Your task to perform on an android device: change the clock display to digital Image 0: 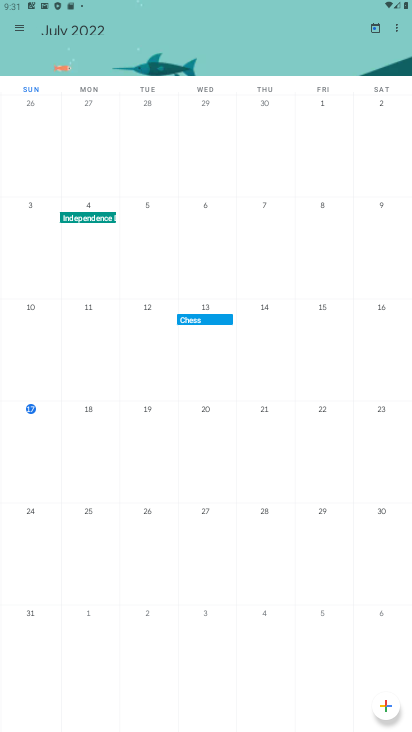
Step 0: press home button
Your task to perform on an android device: change the clock display to digital Image 1: 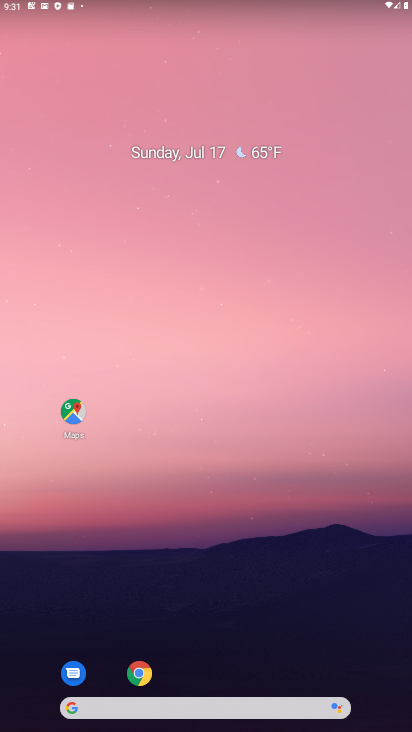
Step 1: drag from (250, 596) to (222, 113)
Your task to perform on an android device: change the clock display to digital Image 2: 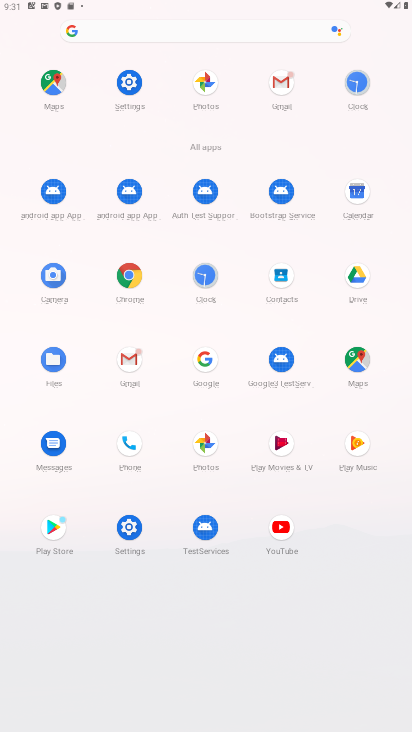
Step 2: click (361, 84)
Your task to perform on an android device: change the clock display to digital Image 3: 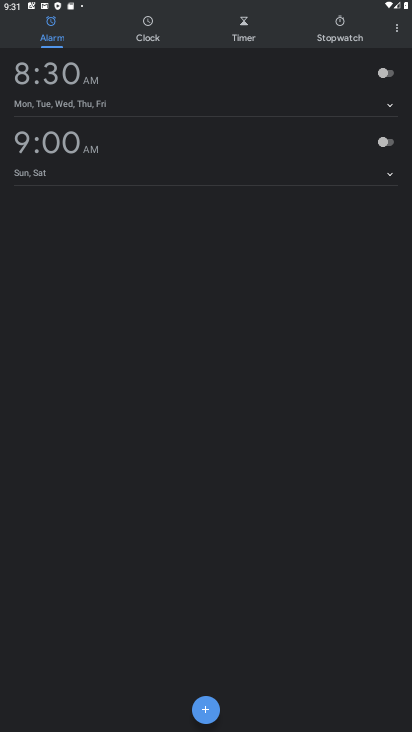
Step 3: click (397, 26)
Your task to perform on an android device: change the clock display to digital Image 4: 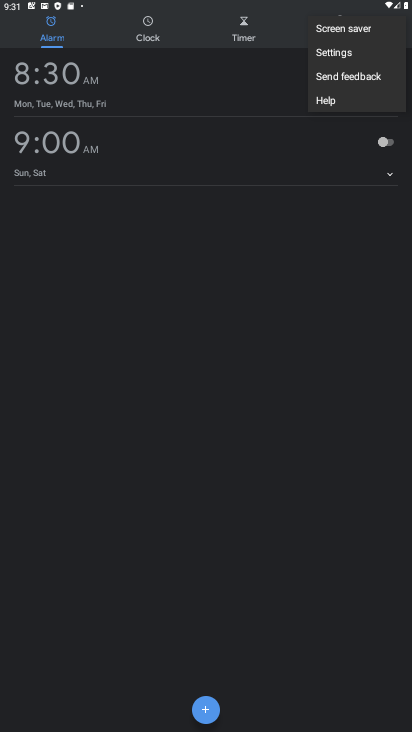
Step 4: click (343, 49)
Your task to perform on an android device: change the clock display to digital Image 5: 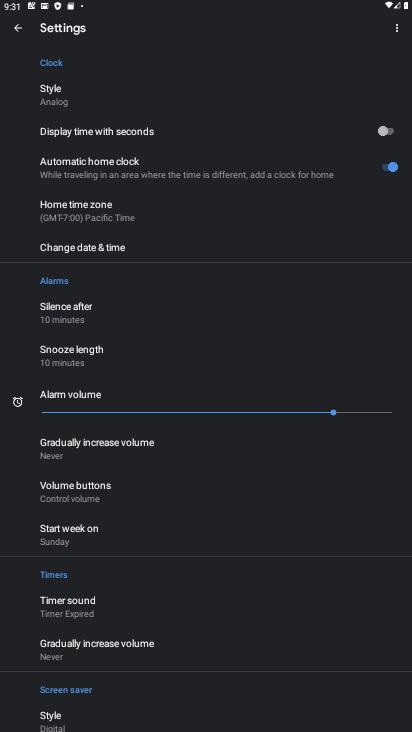
Step 5: click (54, 93)
Your task to perform on an android device: change the clock display to digital Image 6: 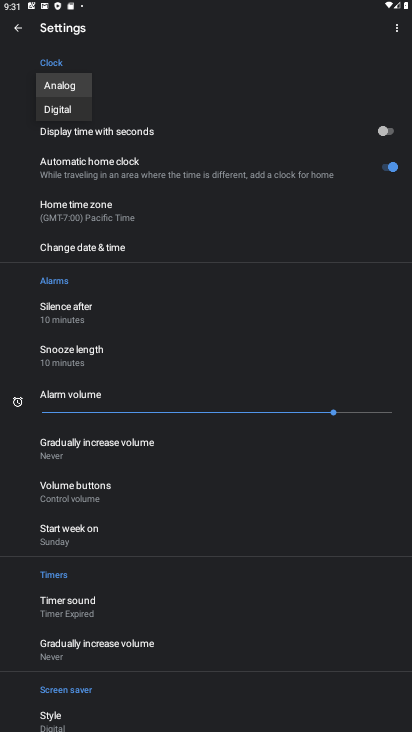
Step 6: click (65, 108)
Your task to perform on an android device: change the clock display to digital Image 7: 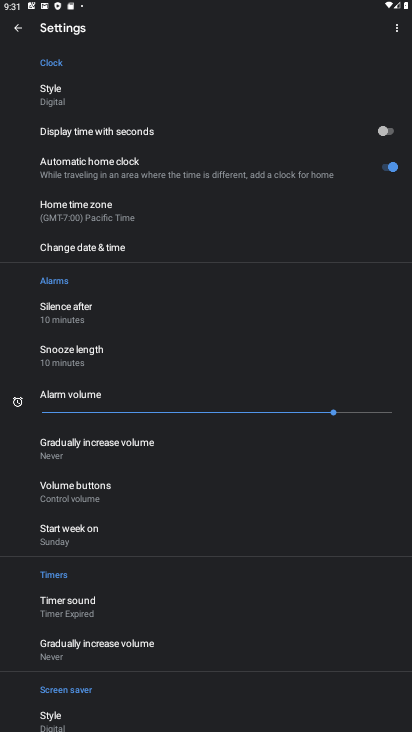
Step 7: task complete